Your task to perform on an android device: turn on the 24-hour format for clock Image 0: 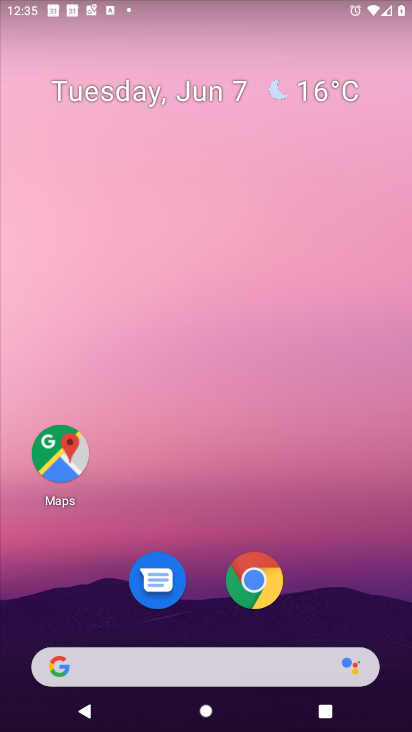
Step 0: drag from (338, 537) to (258, 10)
Your task to perform on an android device: turn on the 24-hour format for clock Image 1: 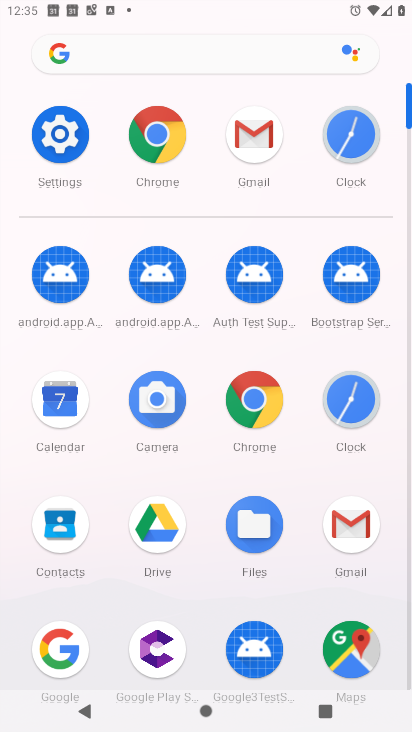
Step 1: click (360, 142)
Your task to perform on an android device: turn on the 24-hour format for clock Image 2: 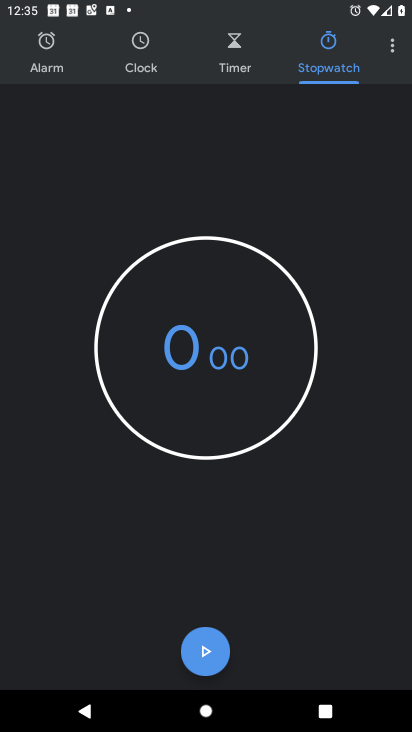
Step 2: click (399, 46)
Your task to perform on an android device: turn on the 24-hour format for clock Image 3: 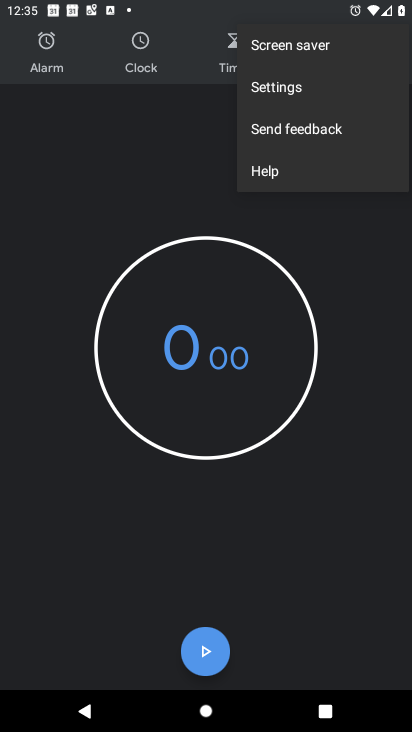
Step 3: click (294, 79)
Your task to perform on an android device: turn on the 24-hour format for clock Image 4: 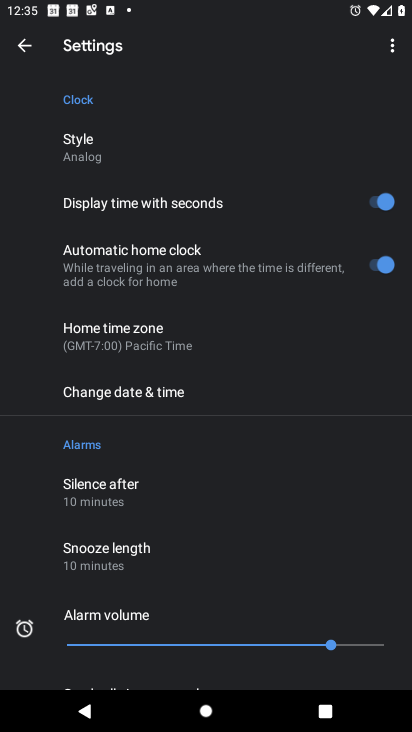
Step 4: click (138, 397)
Your task to perform on an android device: turn on the 24-hour format for clock Image 5: 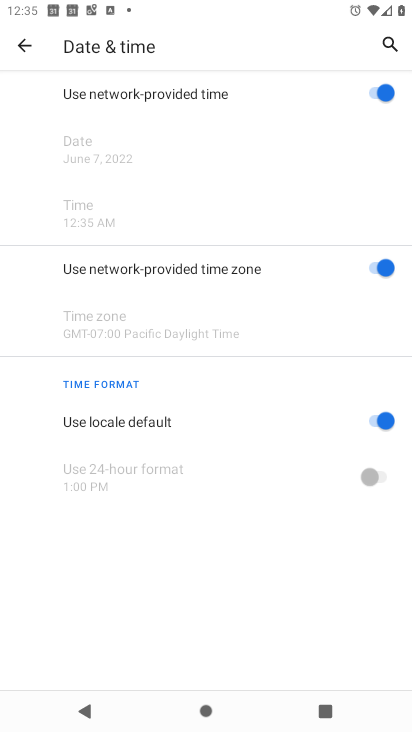
Step 5: drag from (188, 636) to (246, 263)
Your task to perform on an android device: turn on the 24-hour format for clock Image 6: 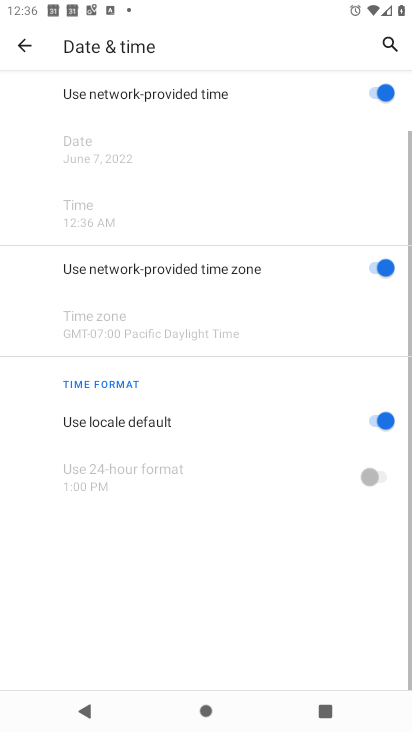
Step 6: click (380, 477)
Your task to perform on an android device: turn on the 24-hour format for clock Image 7: 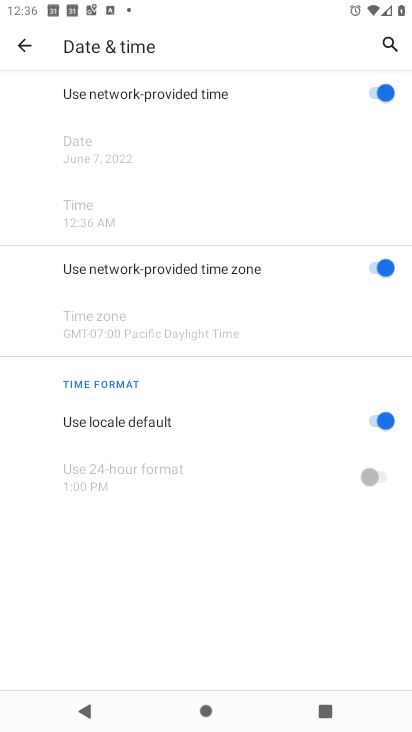
Step 7: click (388, 424)
Your task to perform on an android device: turn on the 24-hour format for clock Image 8: 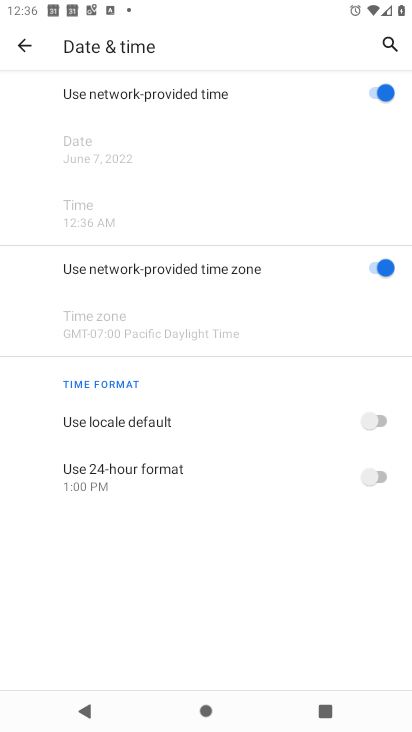
Step 8: click (376, 491)
Your task to perform on an android device: turn on the 24-hour format for clock Image 9: 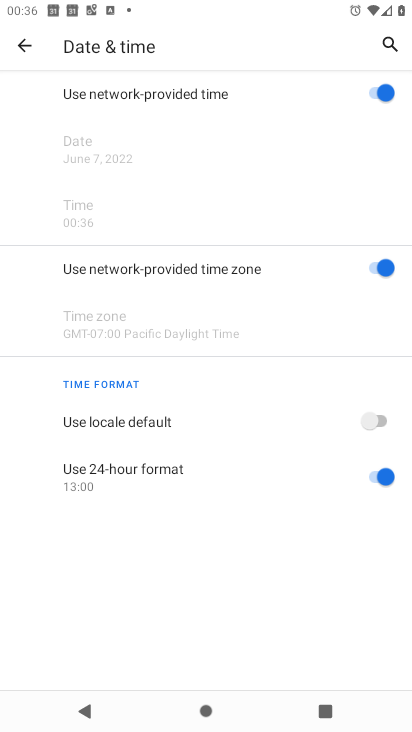
Step 9: task complete